Your task to perform on an android device: Open ESPN.com Image 0: 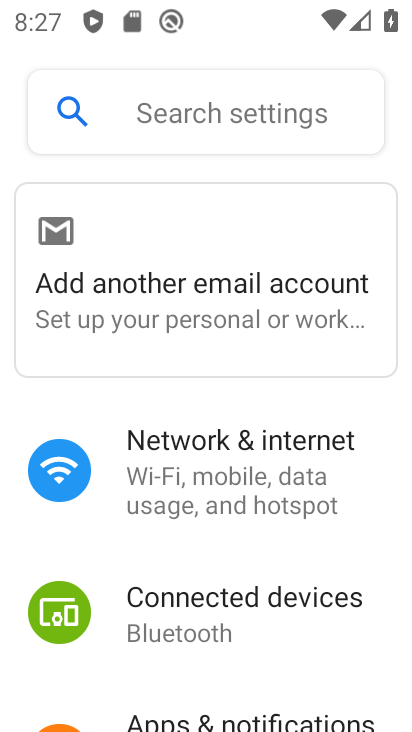
Step 0: press home button
Your task to perform on an android device: Open ESPN.com Image 1: 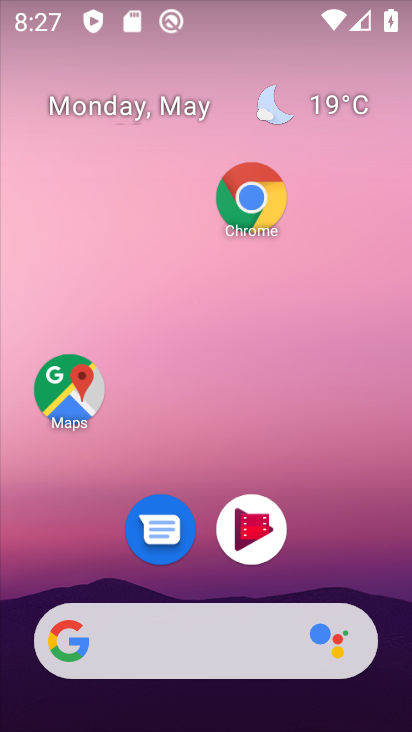
Step 1: click (255, 209)
Your task to perform on an android device: Open ESPN.com Image 2: 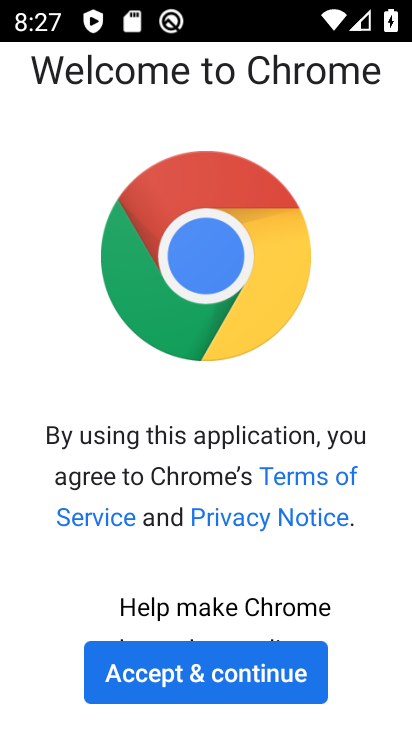
Step 2: click (189, 679)
Your task to perform on an android device: Open ESPN.com Image 3: 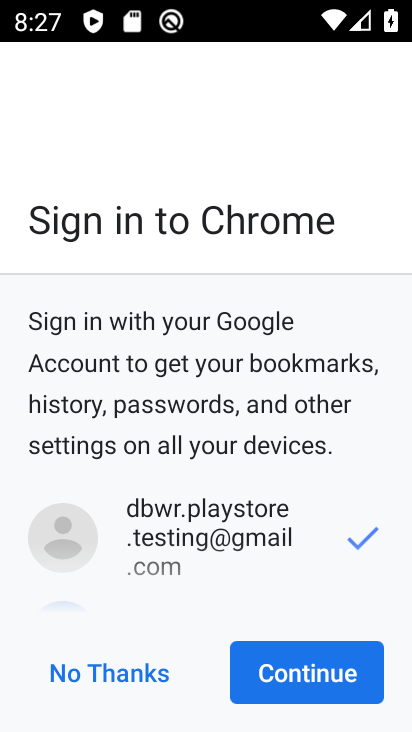
Step 3: click (292, 684)
Your task to perform on an android device: Open ESPN.com Image 4: 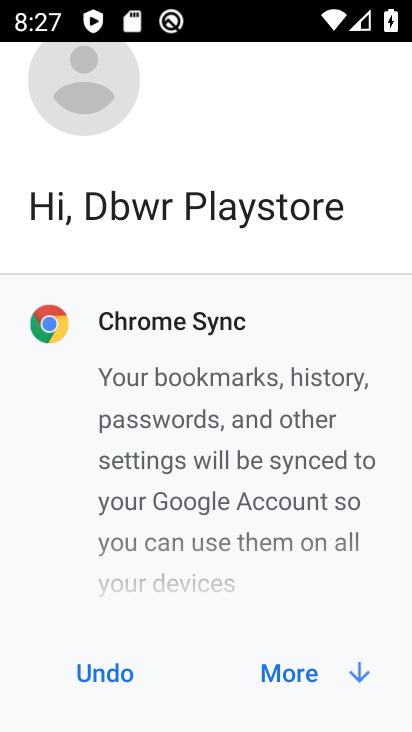
Step 4: click (286, 675)
Your task to perform on an android device: Open ESPN.com Image 5: 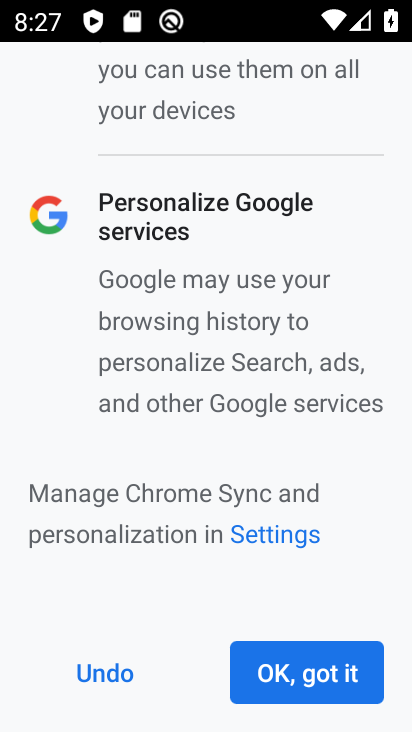
Step 5: click (286, 675)
Your task to perform on an android device: Open ESPN.com Image 6: 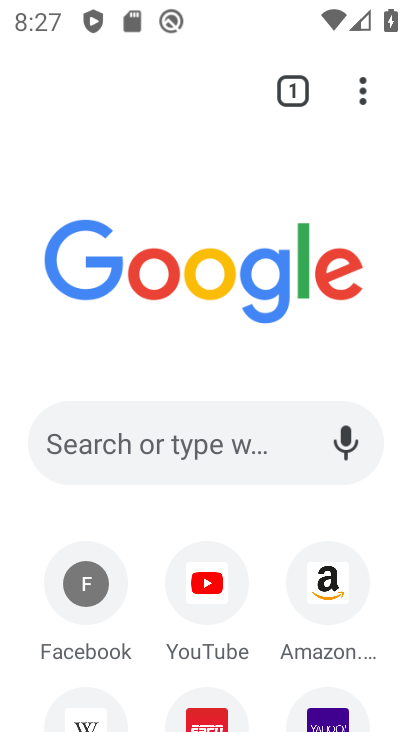
Step 6: click (189, 459)
Your task to perform on an android device: Open ESPN.com Image 7: 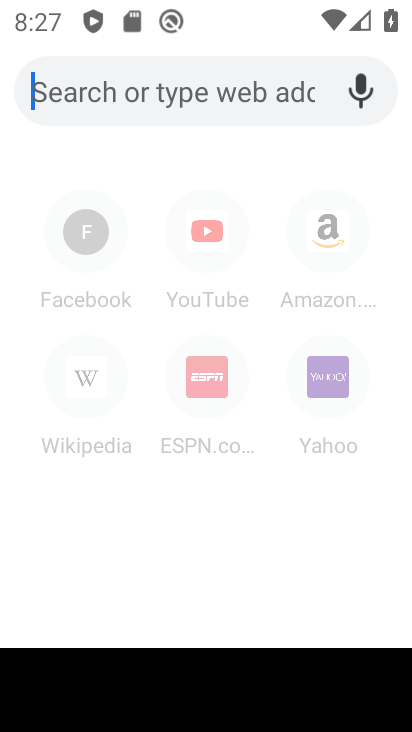
Step 7: click (171, 563)
Your task to perform on an android device: Open ESPN.com Image 8: 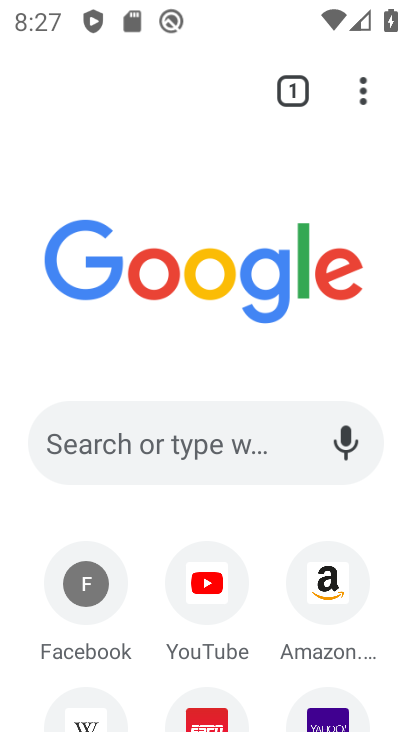
Step 8: click (215, 429)
Your task to perform on an android device: Open ESPN.com Image 9: 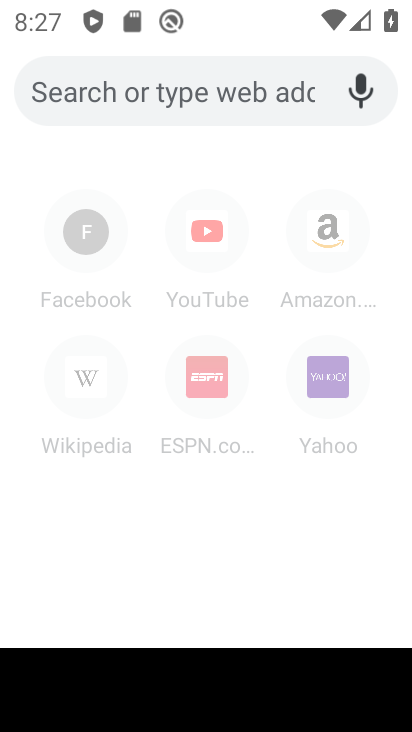
Step 9: click (208, 391)
Your task to perform on an android device: Open ESPN.com Image 10: 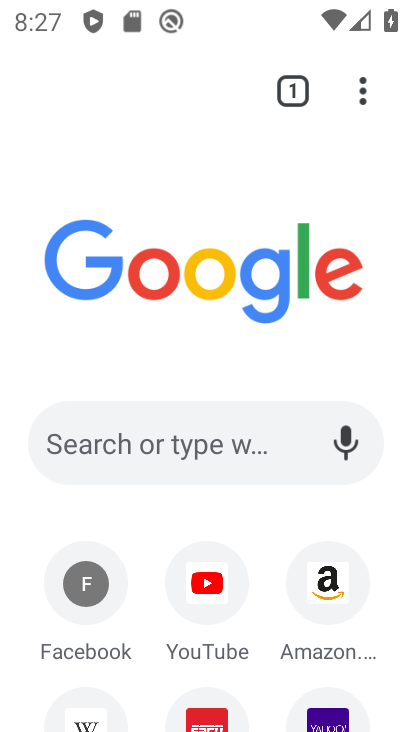
Step 10: click (209, 715)
Your task to perform on an android device: Open ESPN.com Image 11: 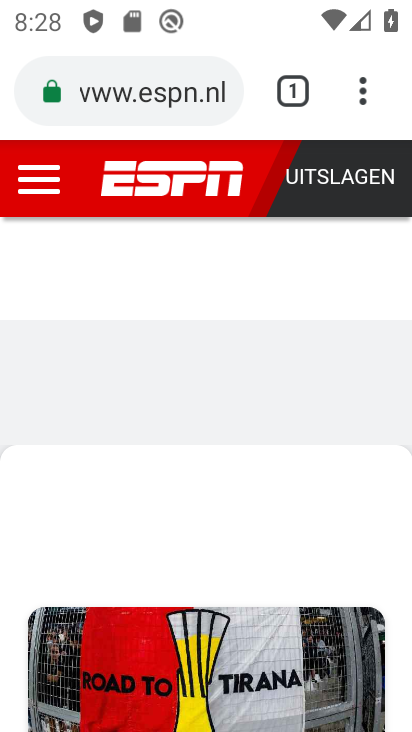
Step 11: task complete